Your task to perform on an android device: open chrome privacy settings Image 0: 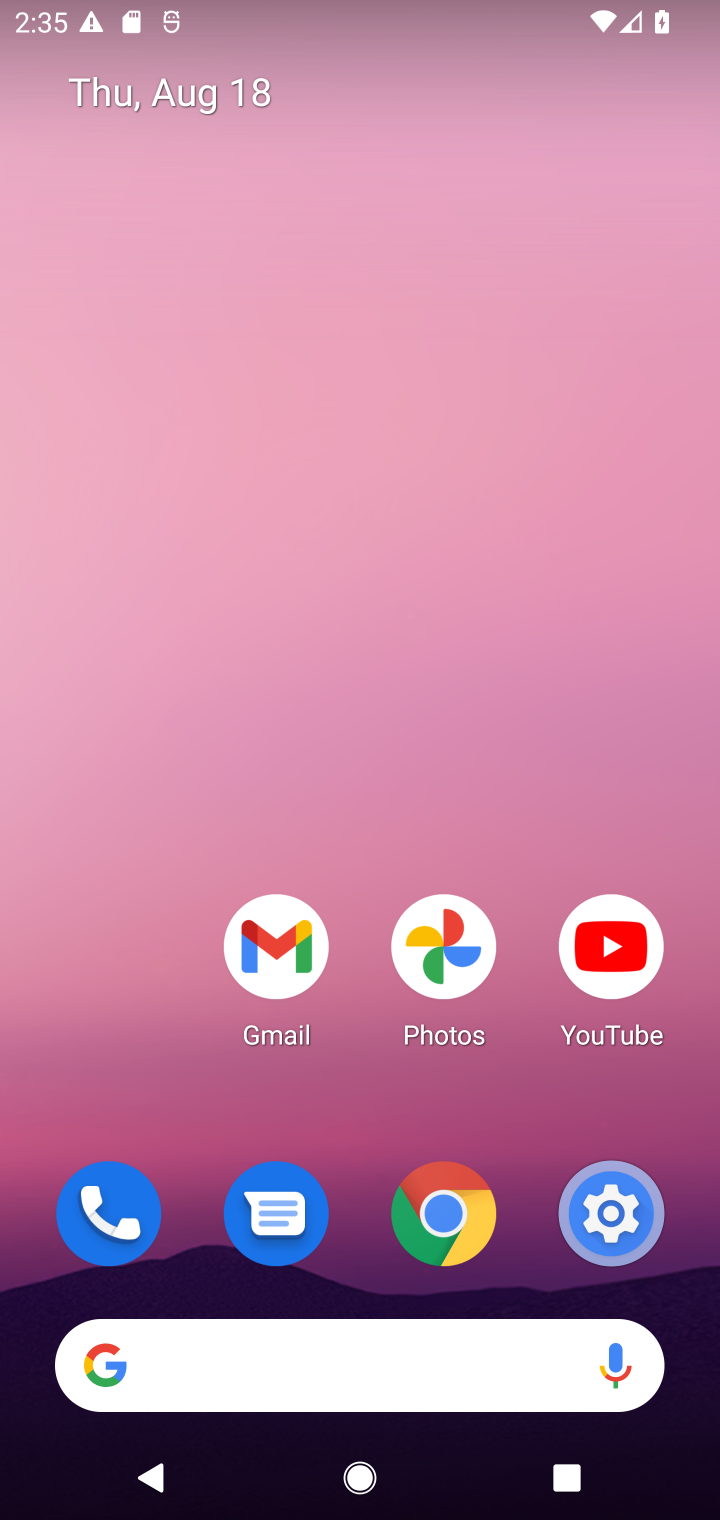
Step 0: press home button
Your task to perform on an android device: open chrome privacy settings Image 1: 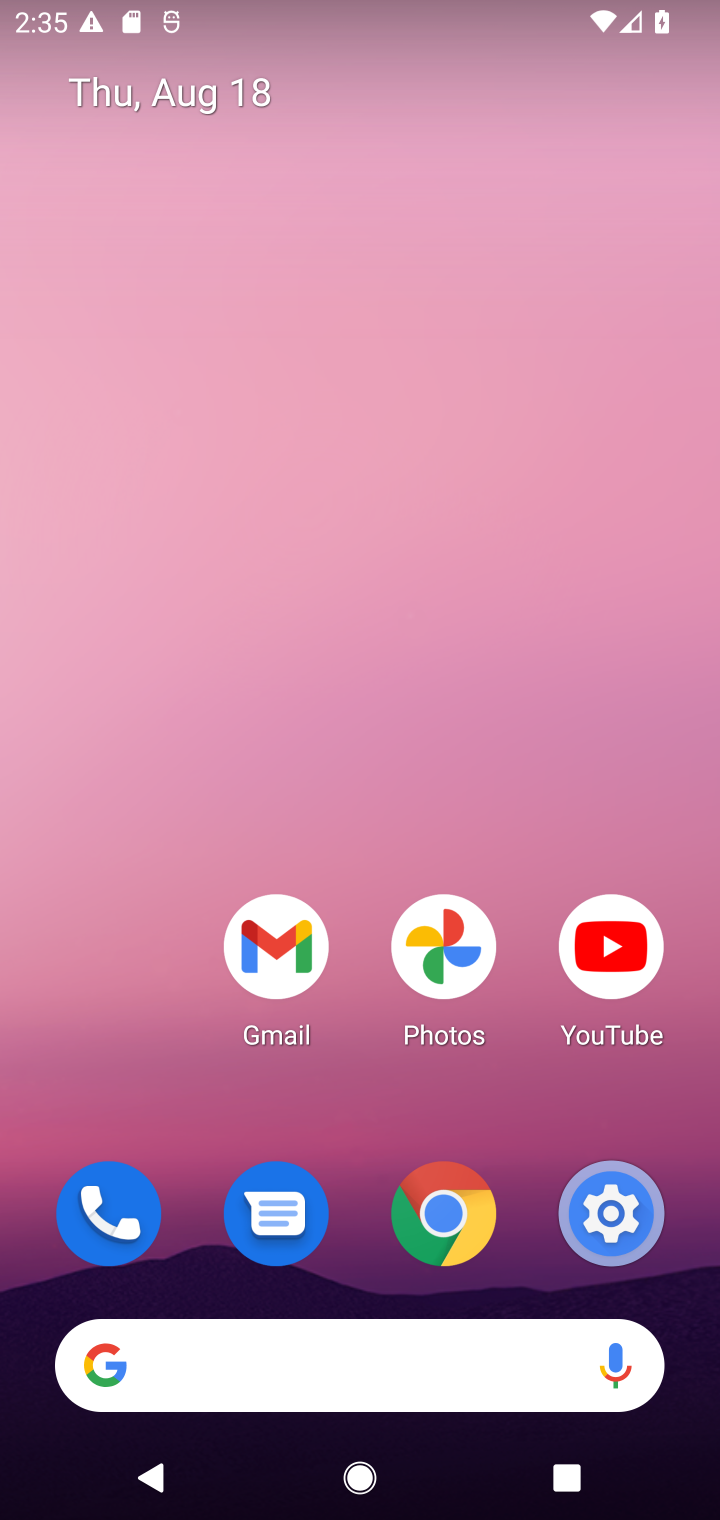
Step 1: click (425, 1204)
Your task to perform on an android device: open chrome privacy settings Image 2: 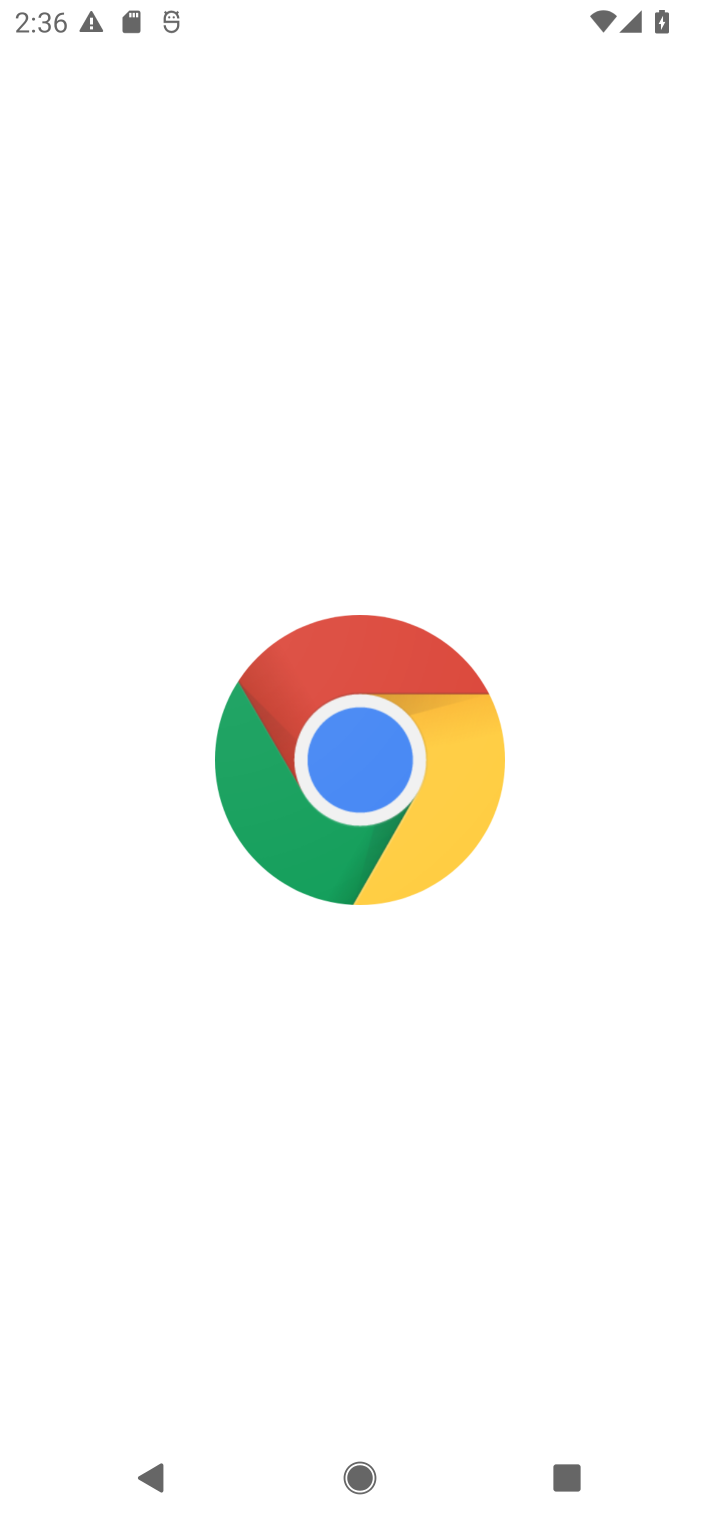
Step 2: click (601, 1333)
Your task to perform on an android device: open chrome privacy settings Image 3: 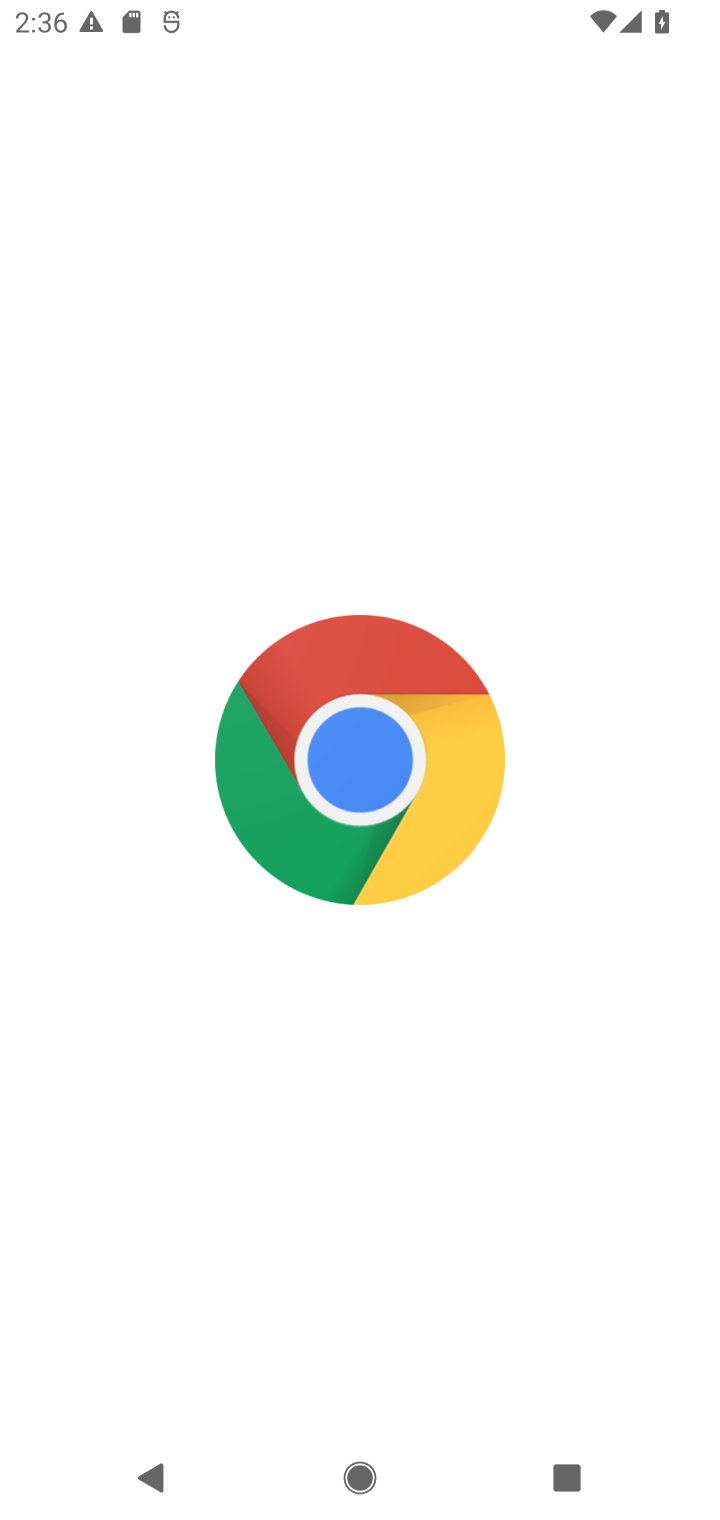
Step 3: click (530, 1378)
Your task to perform on an android device: open chrome privacy settings Image 4: 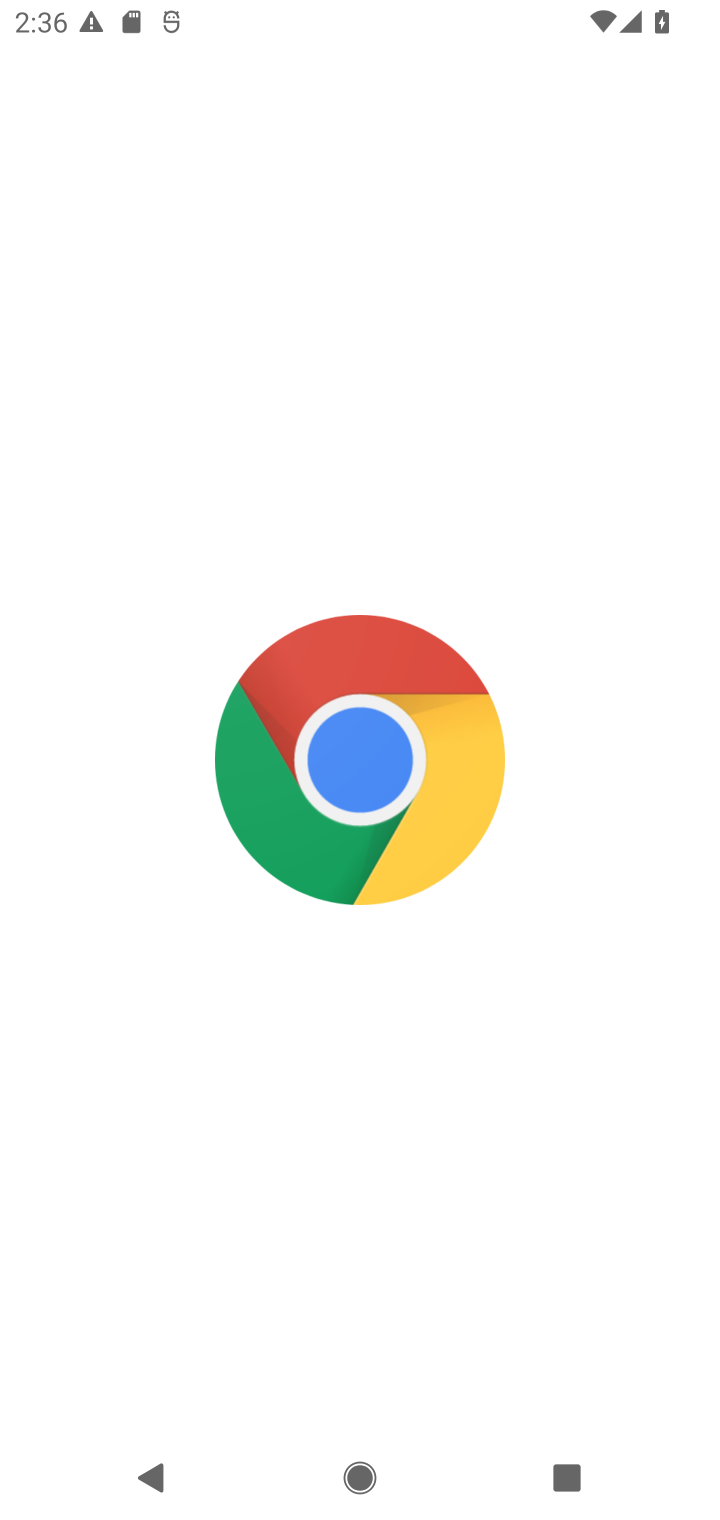
Step 4: click (421, 1007)
Your task to perform on an android device: open chrome privacy settings Image 5: 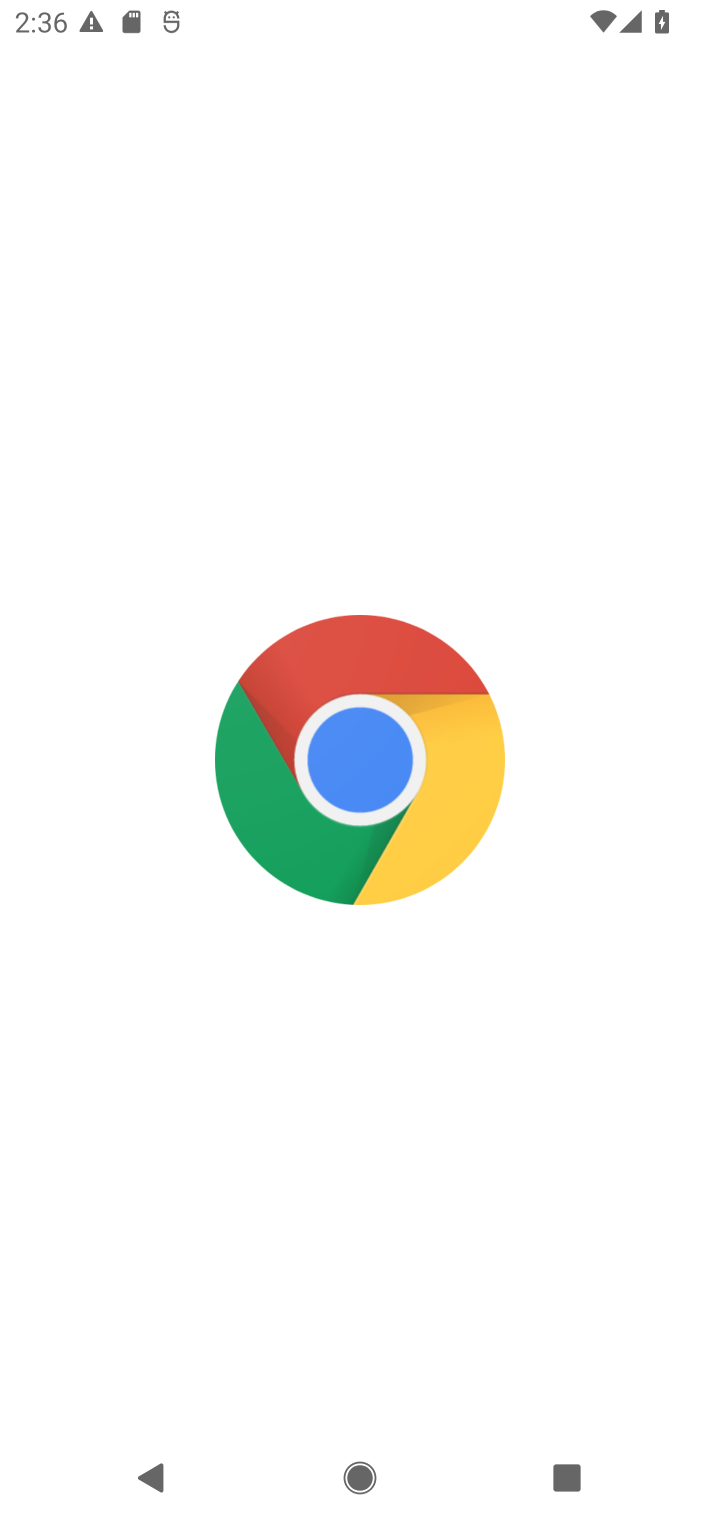
Step 5: drag from (318, 762) to (44, 155)
Your task to perform on an android device: open chrome privacy settings Image 6: 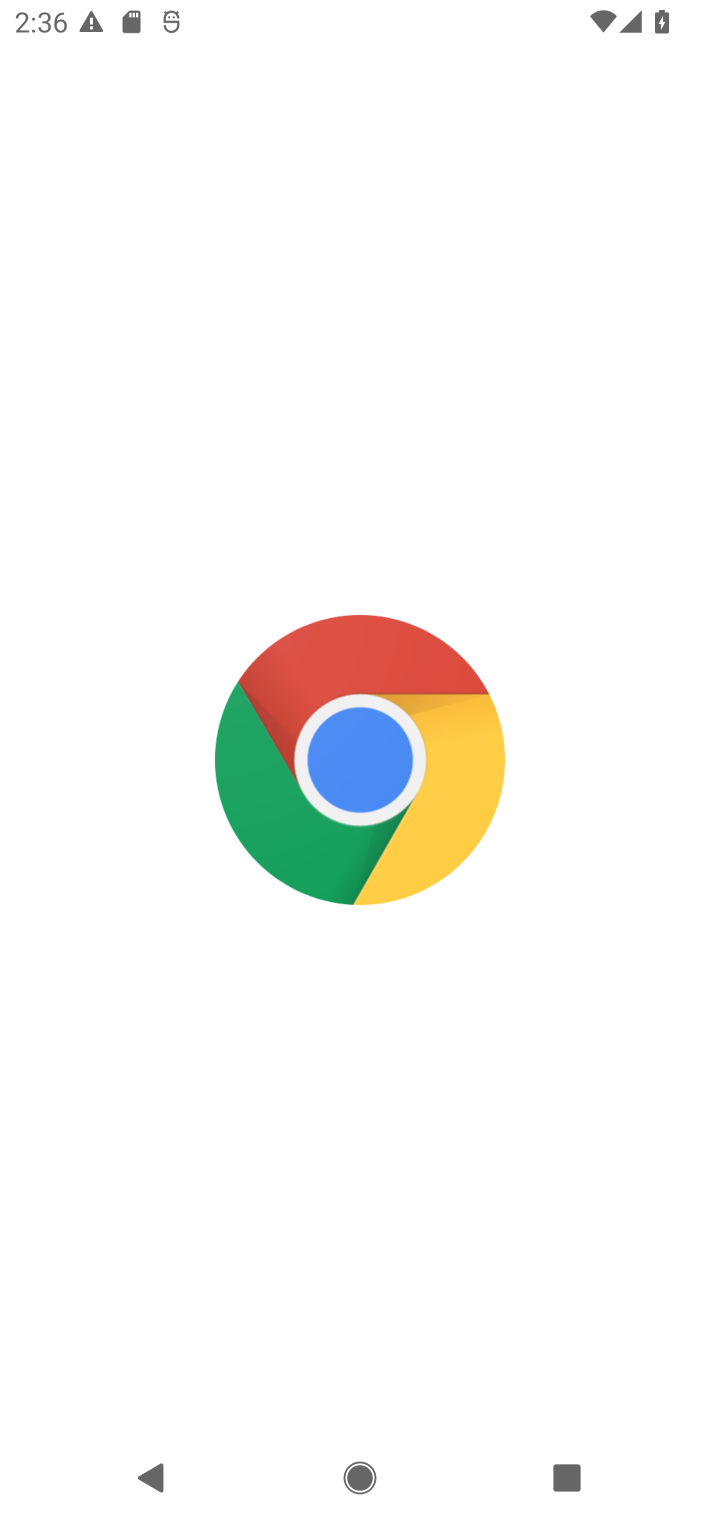
Step 6: drag from (514, 113) to (634, 157)
Your task to perform on an android device: open chrome privacy settings Image 7: 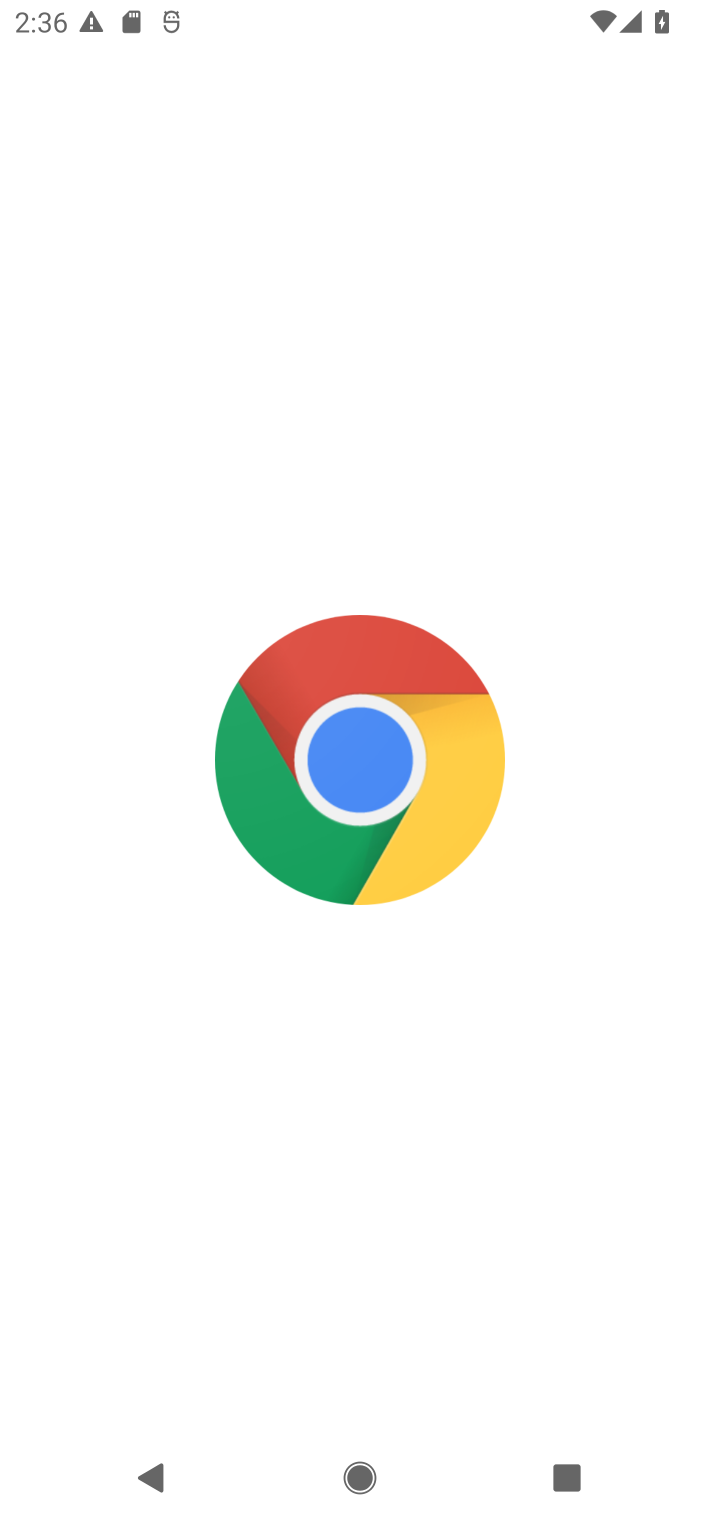
Step 7: click (594, 388)
Your task to perform on an android device: open chrome privacy settings Image 8: 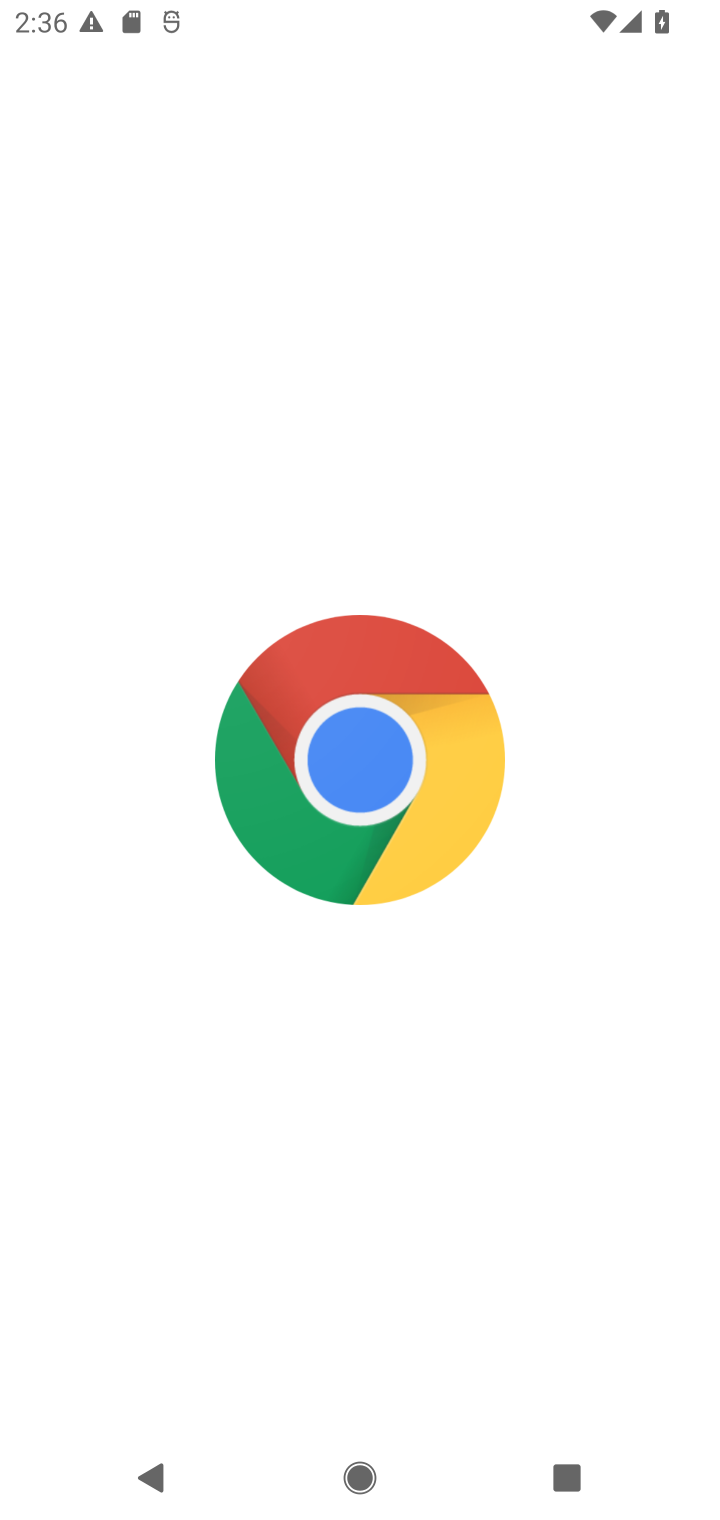
Step 8: click (92, 1298)
Your task to perform on an android device: open chrome privacy settings Image 9: 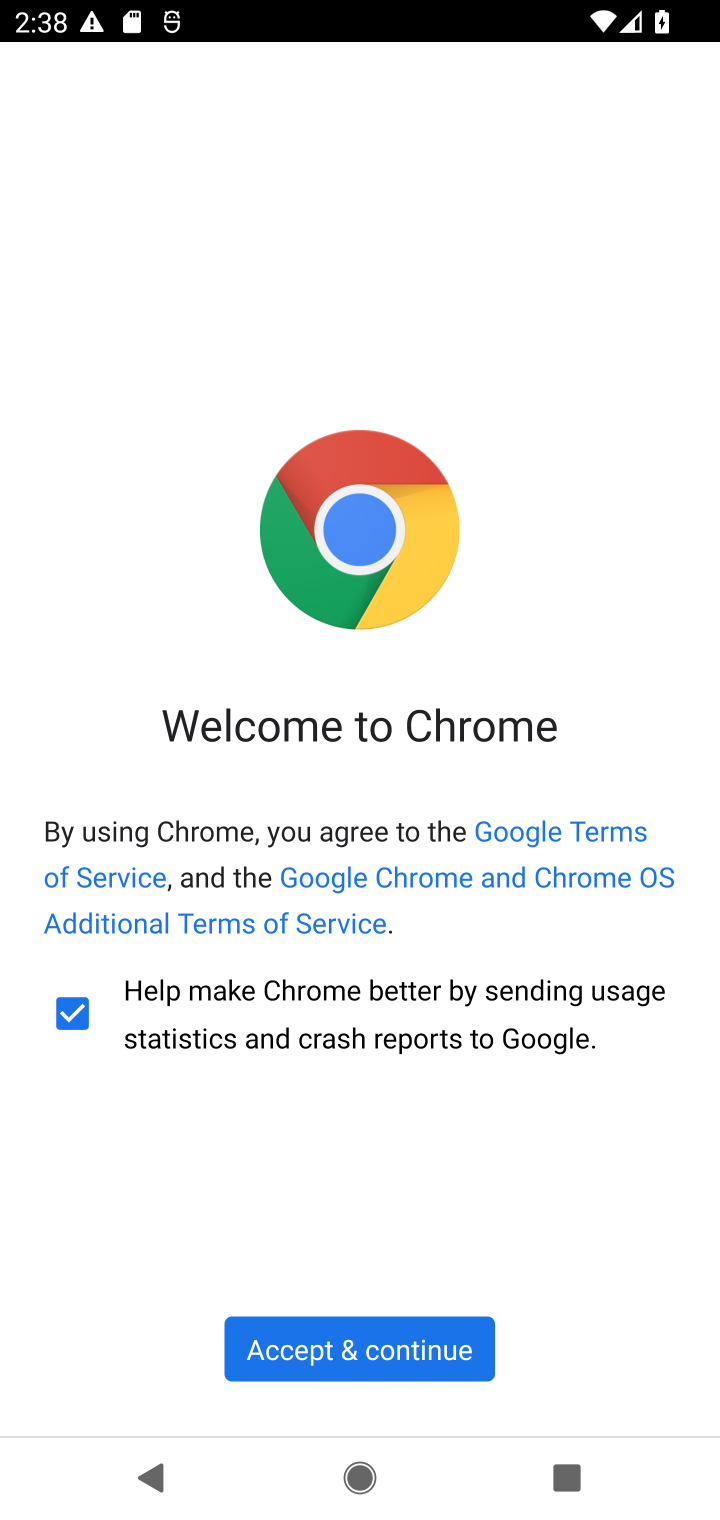
Step 9: click (352, 1349)
Your task to perform on an android device: open chrome privacy settings Image 10: 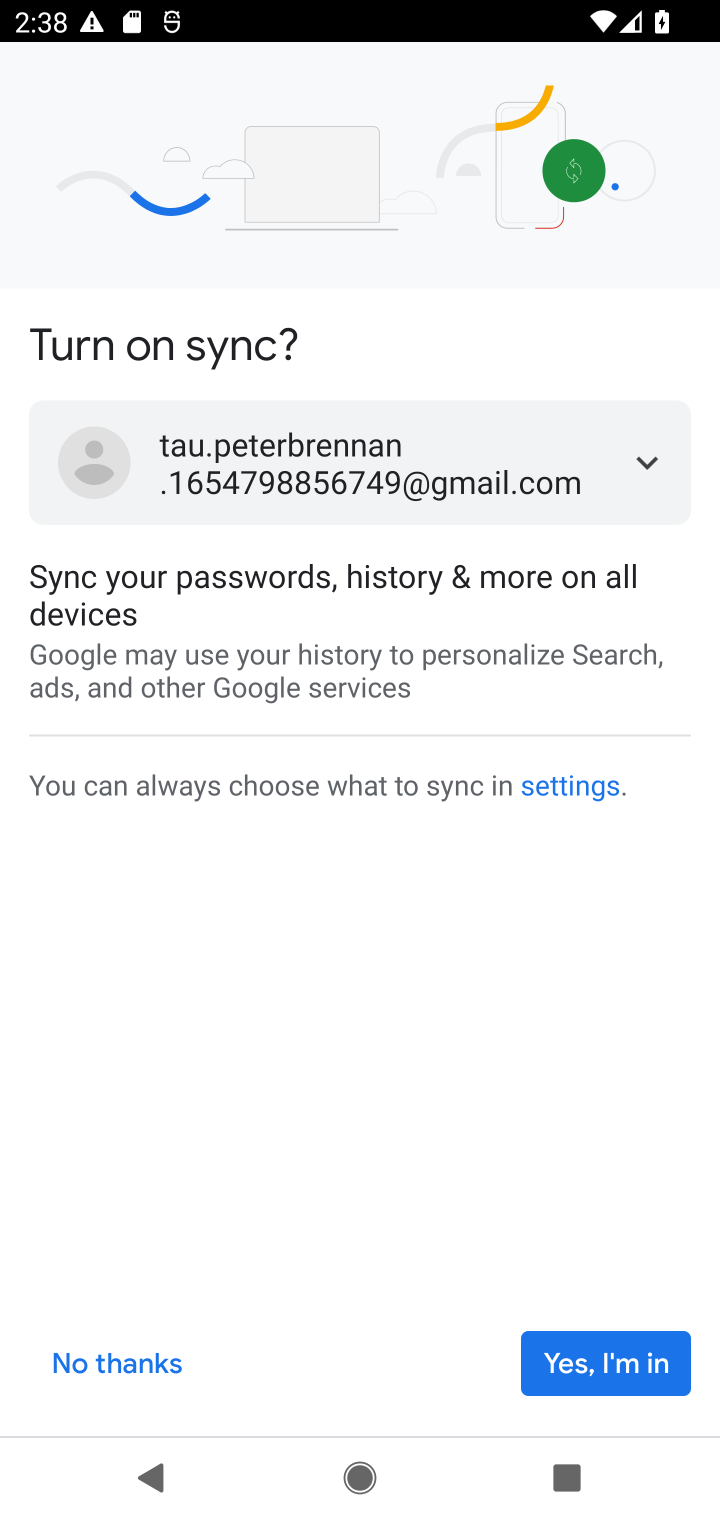
Step 10: click (602, 1359)
Your task to perform on an android device: open chrome privacy settings Image 11: 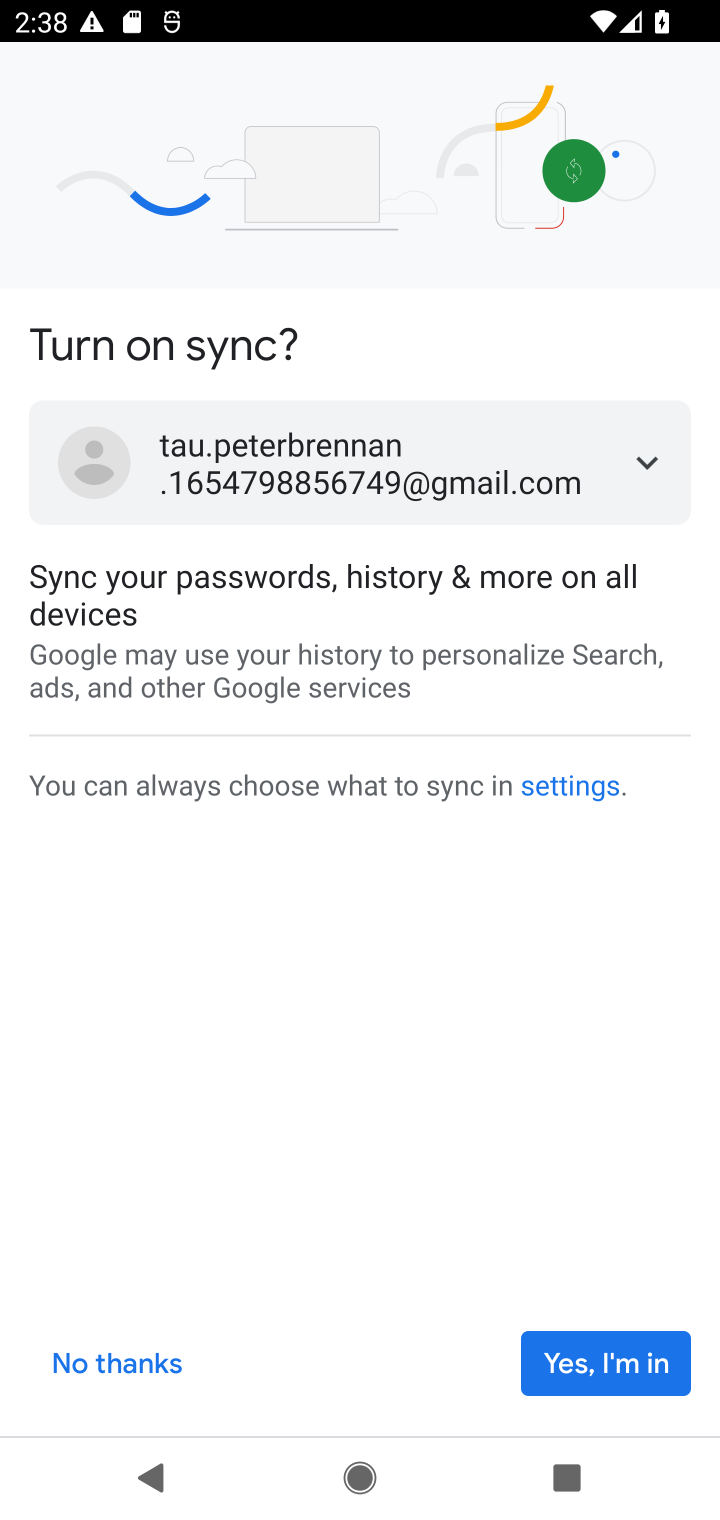
Step 11: click (623, 1367)
Your task to perform on an android device: open chrome privacy settings Image 12: 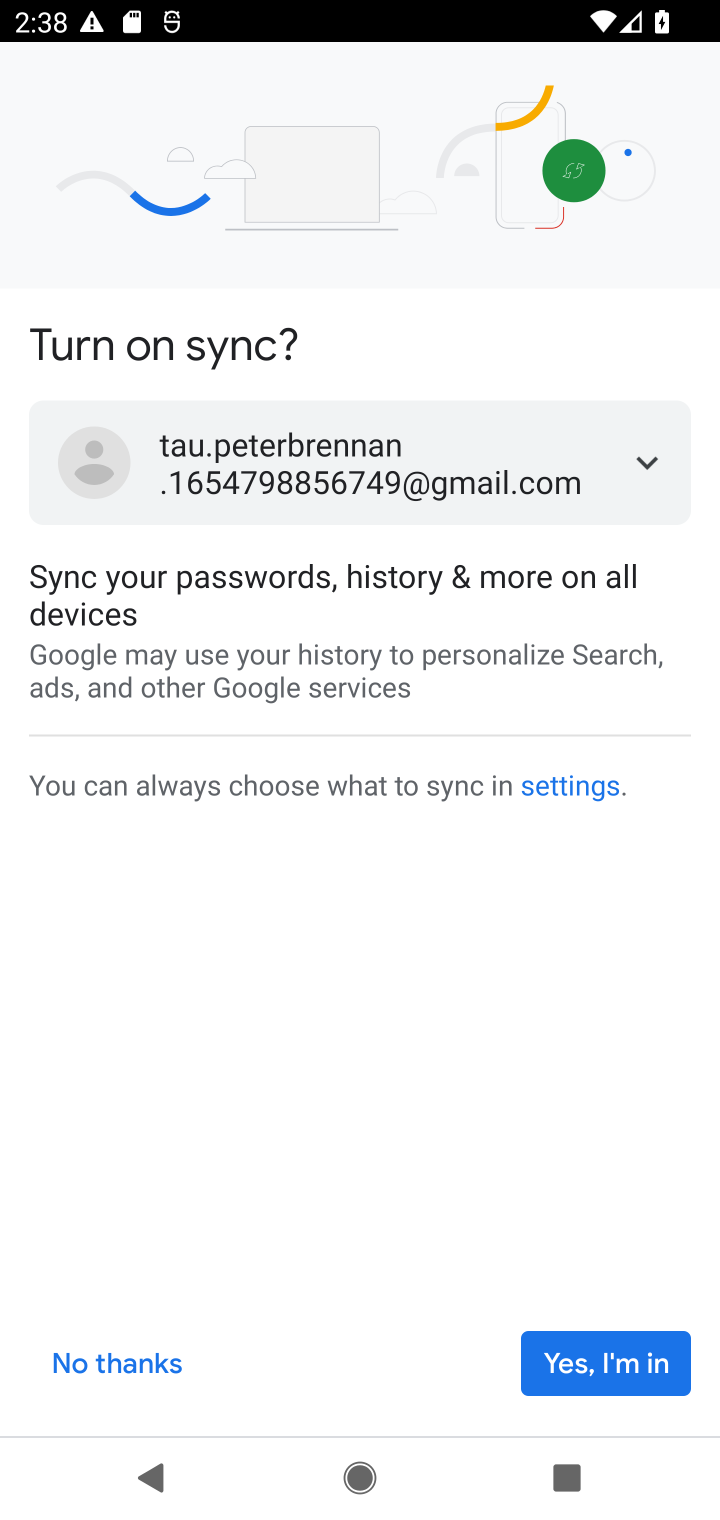
Step 12: click (155, 1372)
Your task to perform on an android device: open chrome privacy settings Image 13: 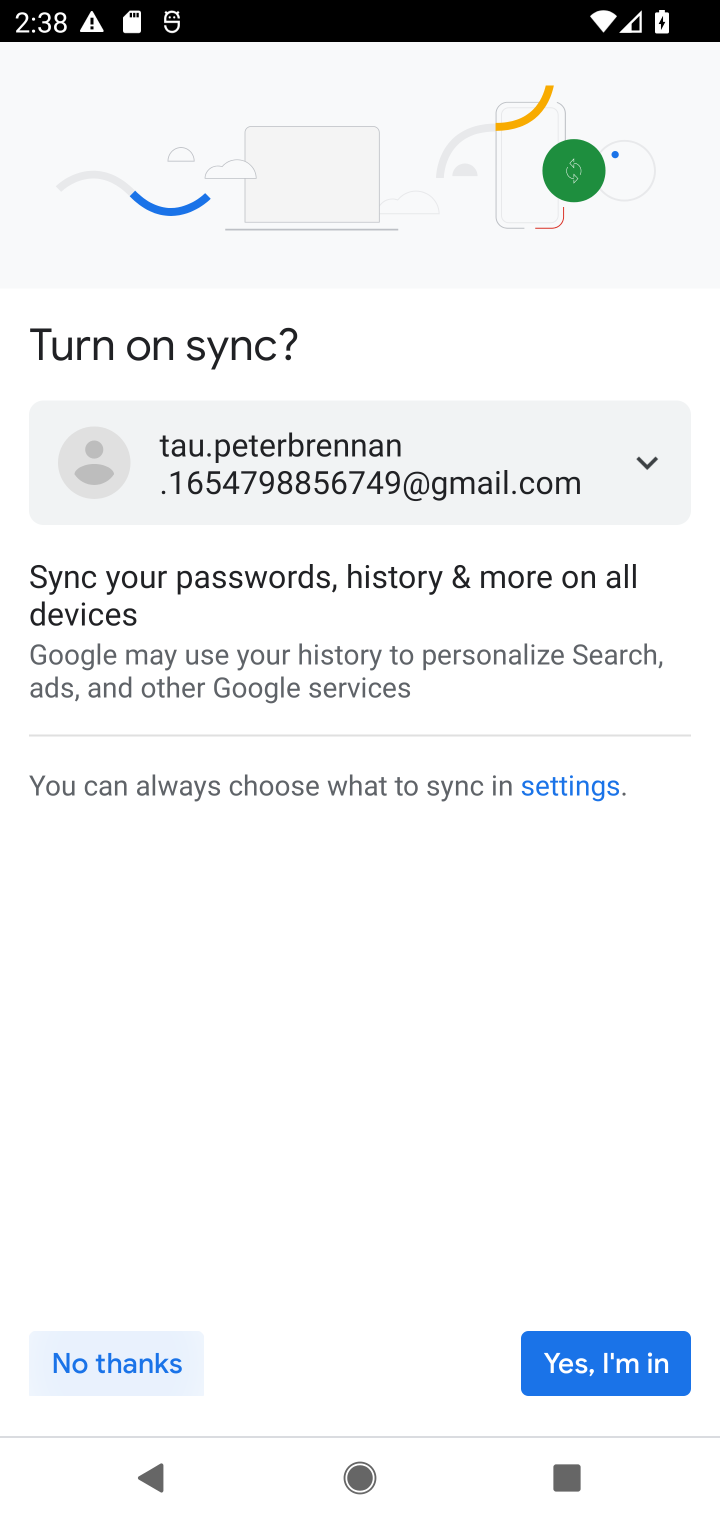
Step 13: click (140, 1360)
Your task to perform on an android device: open chrome privacy settings Image 14: 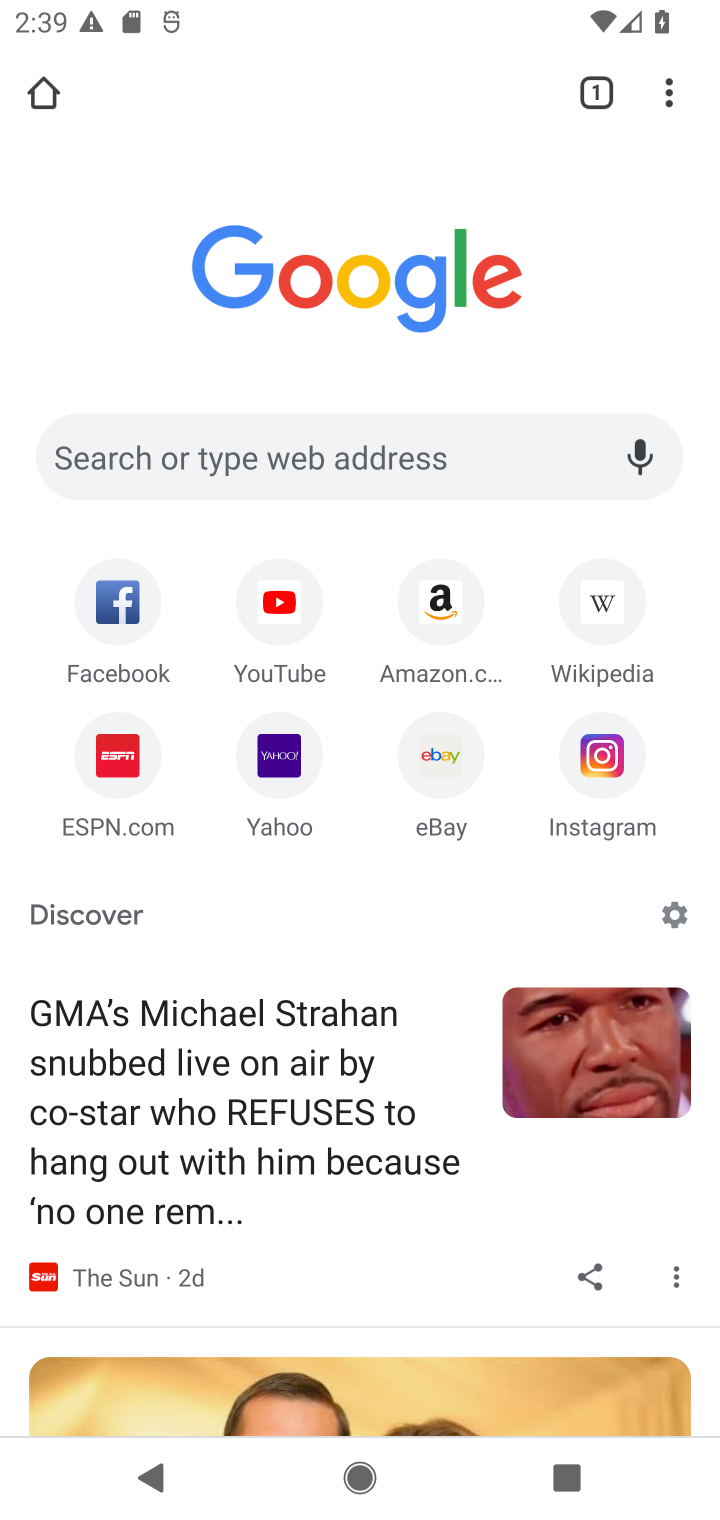
Step 14: drag from (657, 81) to (390, 864)
Your task to perform on an android device: open chrome privacy settings Image 15: 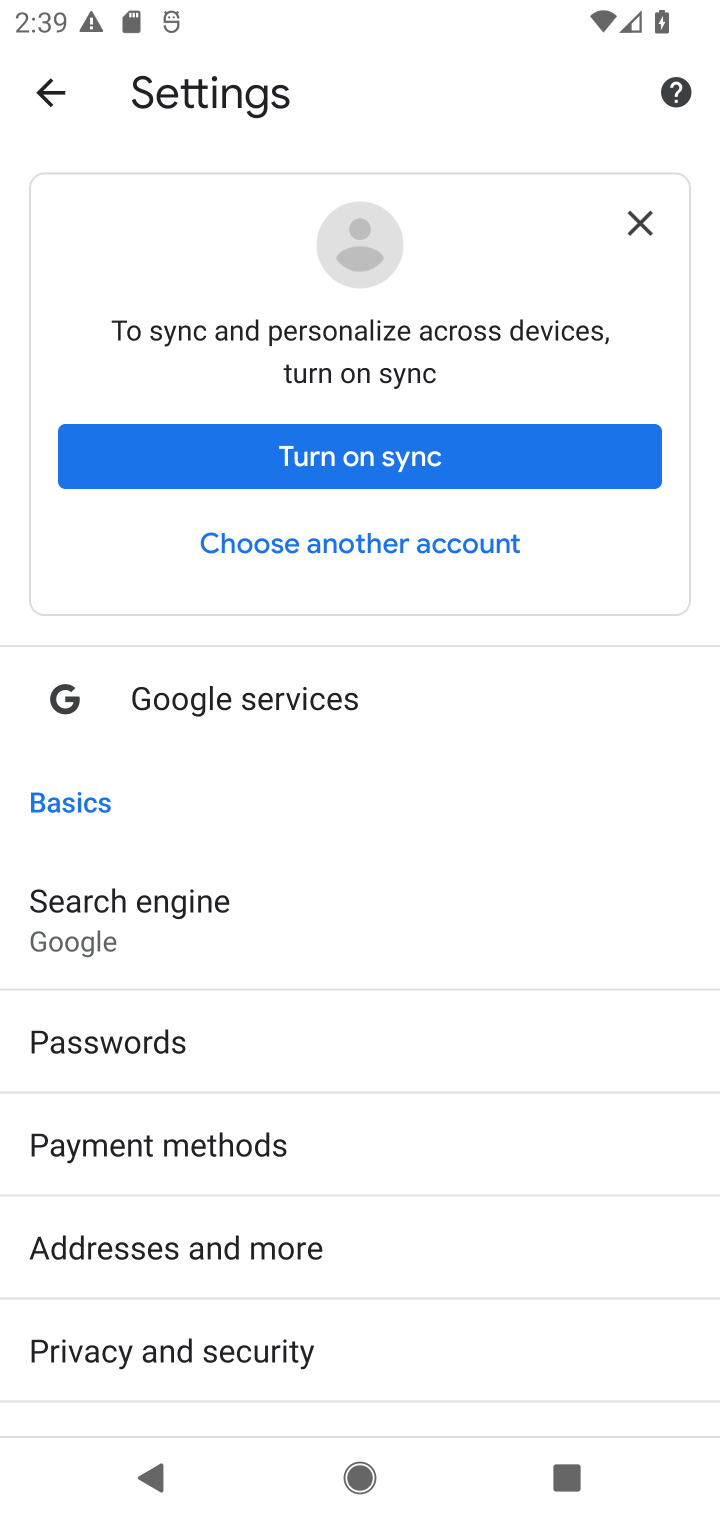
Step 15: drag from (386, 818) to (364, 139)
Your task to perform on an android device: open chrome privacy settings Image 16: 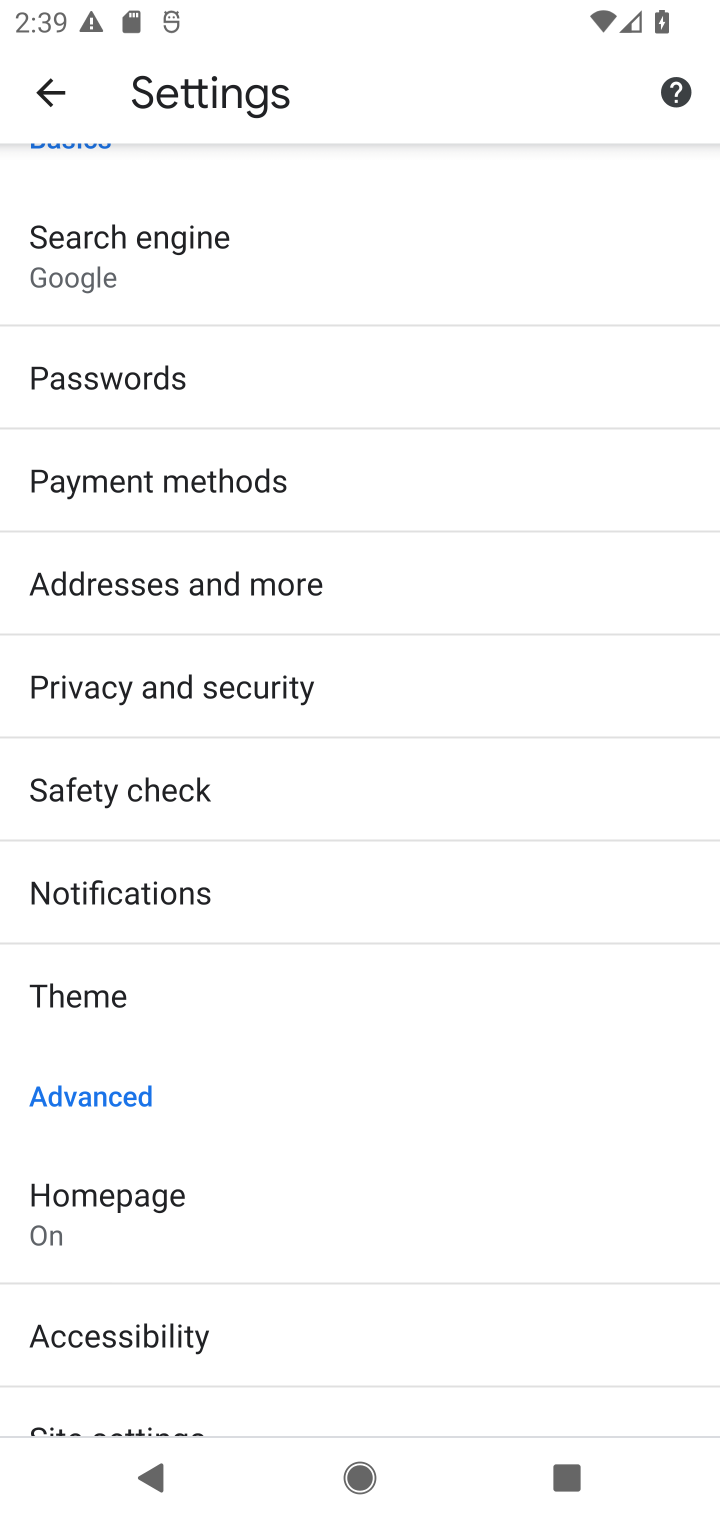
Step 16: drag from (228, 1103) to (194, 373)
Your task to perform on an android device: open chrome privacy settings Image 17: 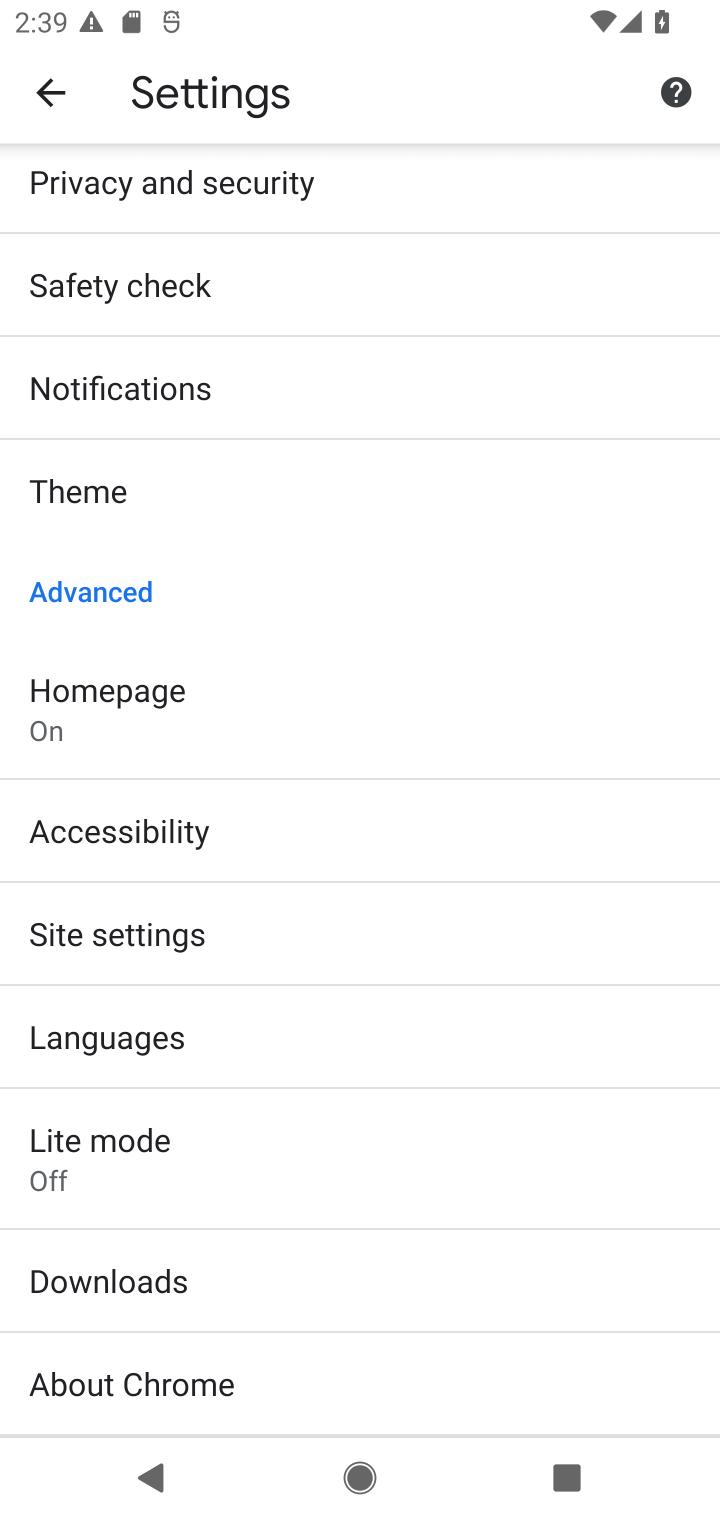
Step 17: drag from (226, 567) to (281, 3)
Your task to perform on an android device: open chrome privacy settings Image 18: 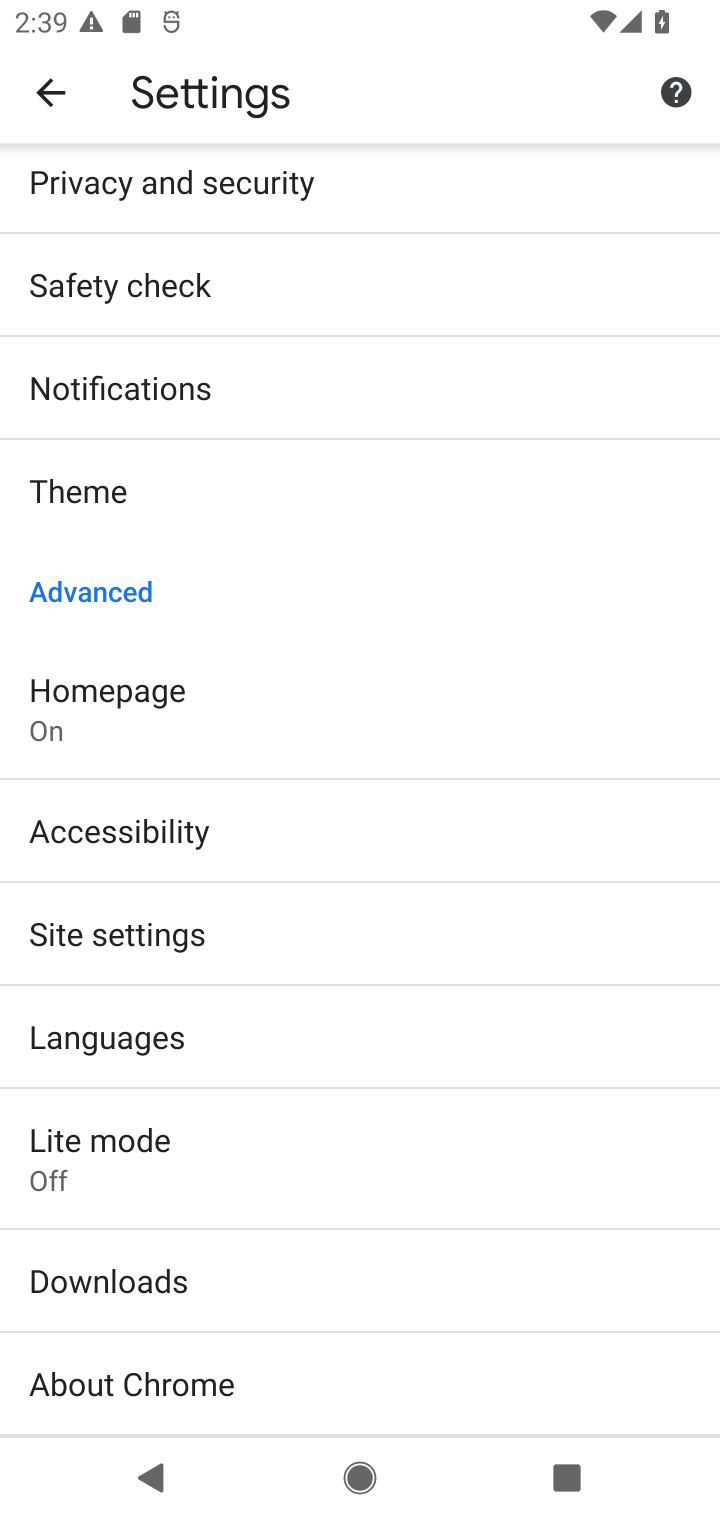
Step 18: click (292, 179)
Your task to perform on an android device: open chrome privacy settings Image 19: 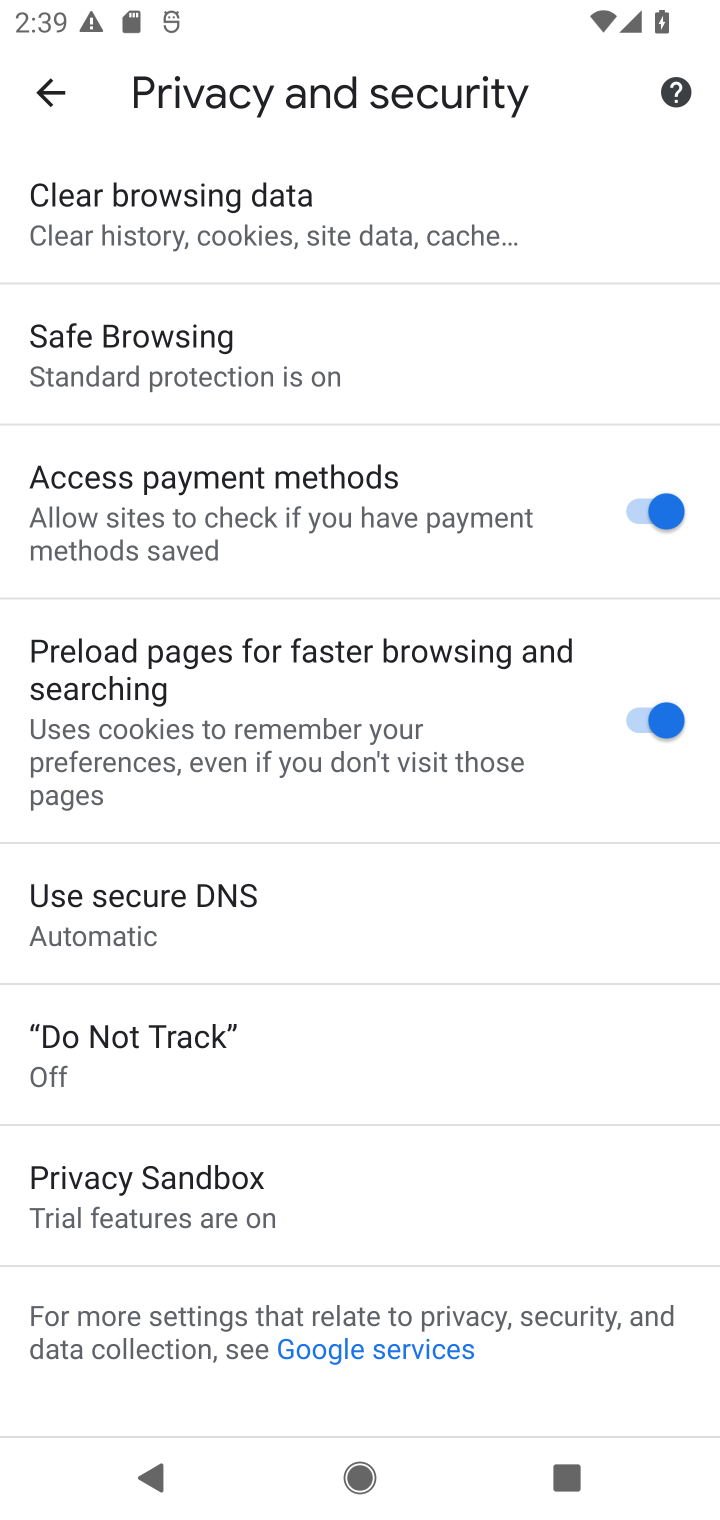
Step 19: task complete